Your task to perform on an android device: Open calendar and show me the first week of next month Image 0: 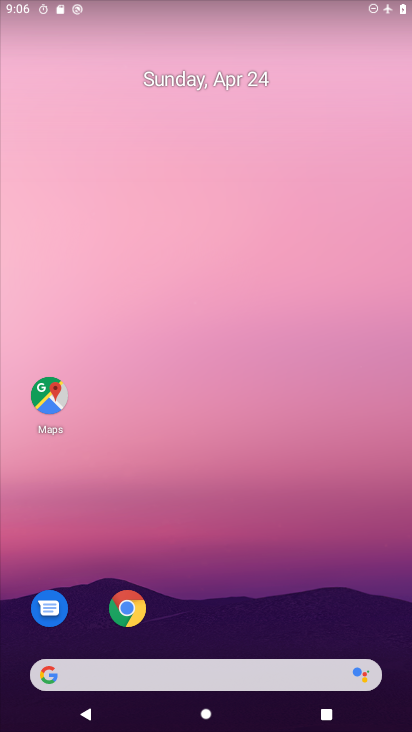
Step 0: drag from (298, 589) to (281, 94)
Your task to perform on an android device: Open calendar and show me the first week of next month Image 1: 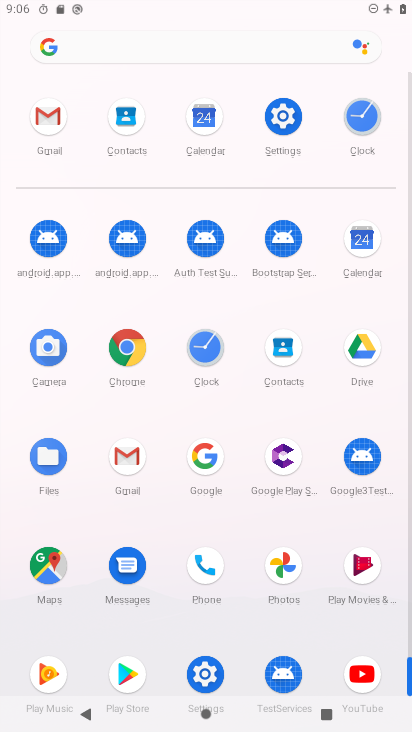
Step 1: click (200, 112)
Your task to perform on an android device: Open calendar and show me the first week of next month Image 2: 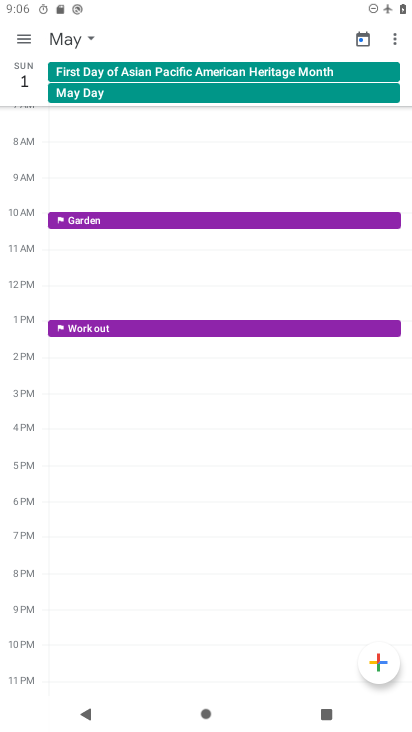
Step 2: click (24, 38)
Your task to perform on an android device: Open calendar and show me the first week of next month Image 3: 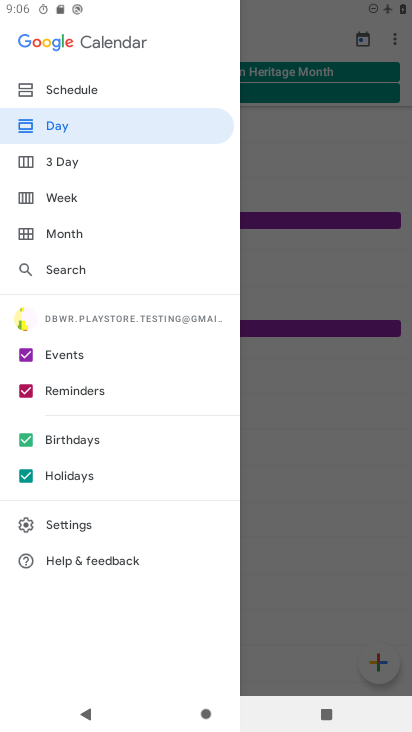
Step 3: click (65, 188)
Your task to perform on an android device: Open calendar and show me the first week of next month Image 4: 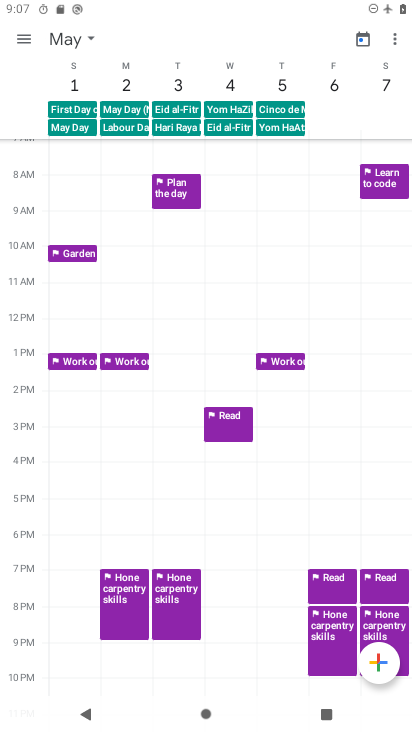
Step 4: task complete